Your task to perform on an android device: turn off sleep mode Image 0: 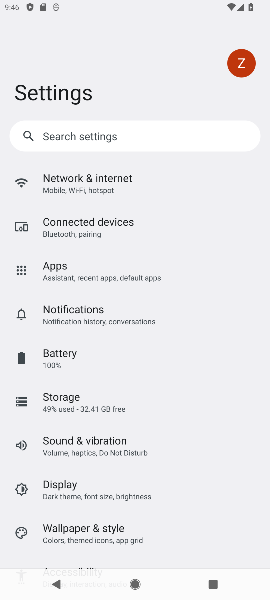
Step 0: drag from (122, 319) to (100, 117)
Your task to perform on an android device: turn off sleep mode Image 1: 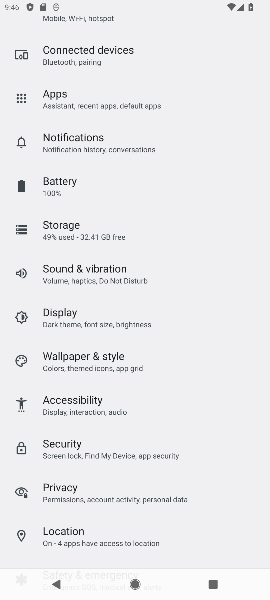
Step 1: click (63, 307)
Your task to perform on an android device: turn off sleep mode Image 2: 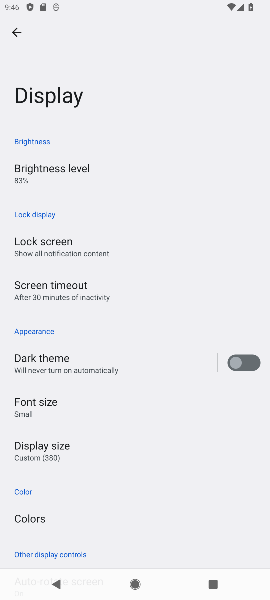
Step 2: task complete